Your task to perform on an android device: turn on the 12-hour format for clock Image 0: 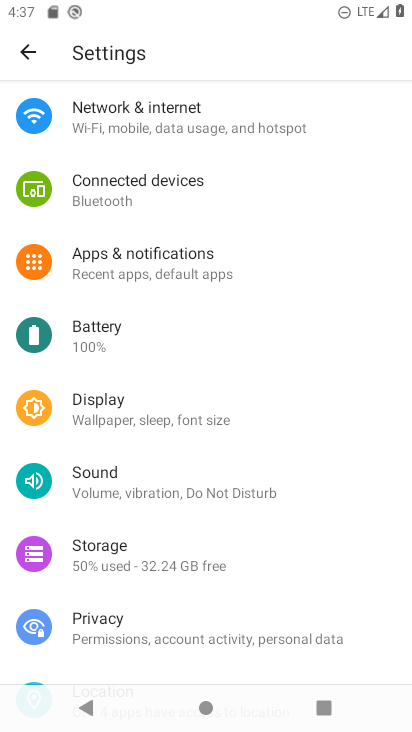
Step 0: press home button
Your task to perform on an android device: turn on the 12-hour format for clock Image 1: 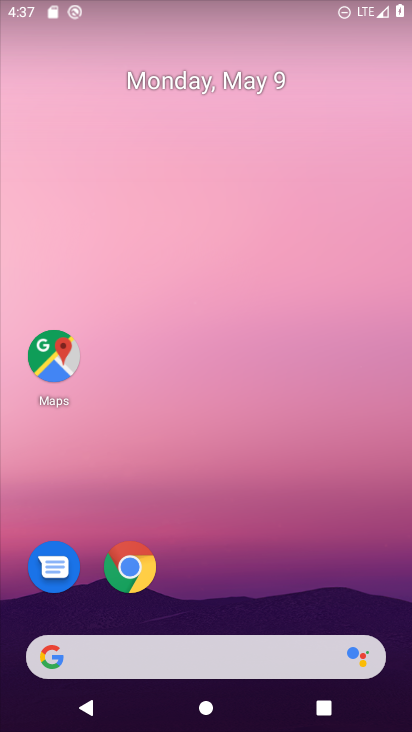
Step 1: drag from (260, 580) to (240, 57)
Your task to perform on an android device: turn on the 12-hour format for clock Image 2: 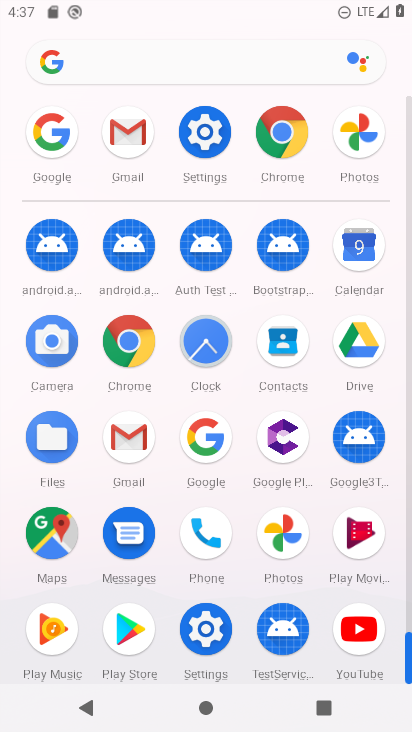
Step 2: click (203, 336)
Your task to perform on an android device: turn on the 12-hour format for clock Image 3: 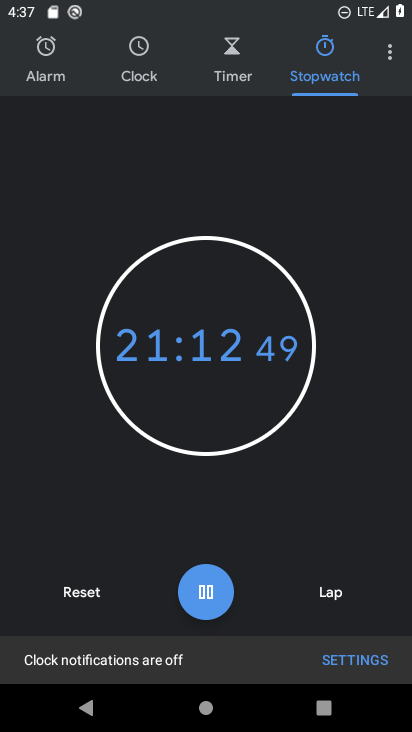
Step 3: click (398, 51)
Your task to perform on an android device: turn on the 12-hour format for clock Image 4: 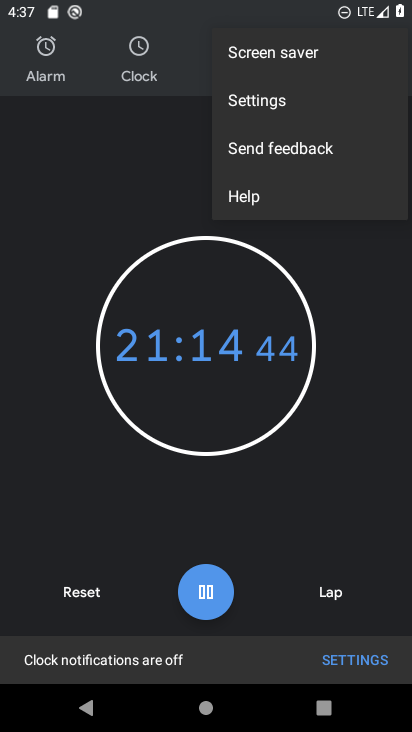
Step 4: click (265, 106)
Your task to perform on an android device: turn on the 12-hour format for clock Image 5: 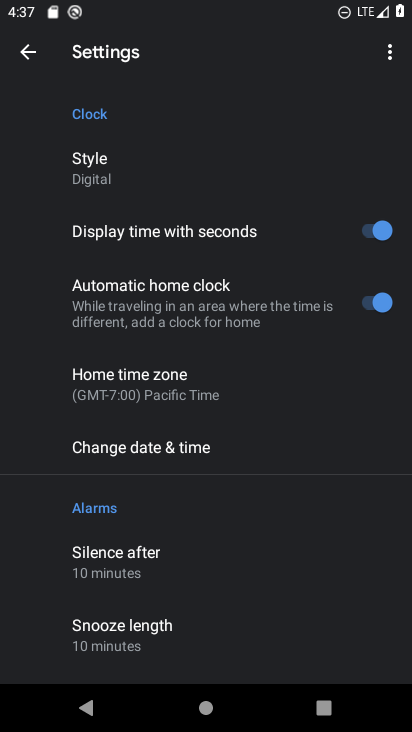
Step 5: click (179, 448)
Your task to perform on an android device: turn on the 12-hour format for clock Image 6: 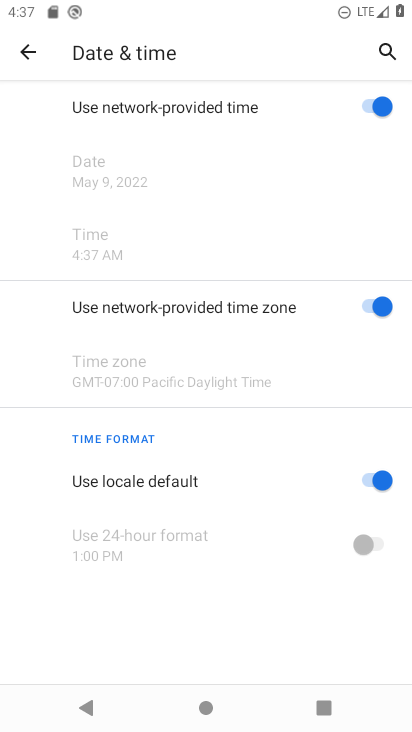
Step 6: task complete